Your task to perform on an android device: check android version Image 0: 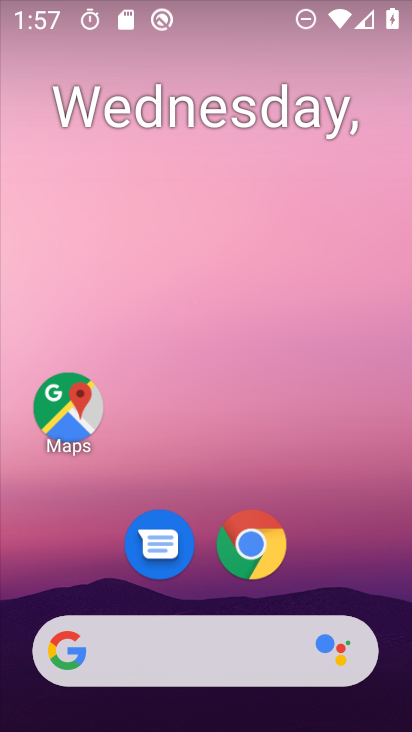
Step 0: drag from (350, 554) to (355, 185)
Your task to perform on an android device: check android version Image 1: 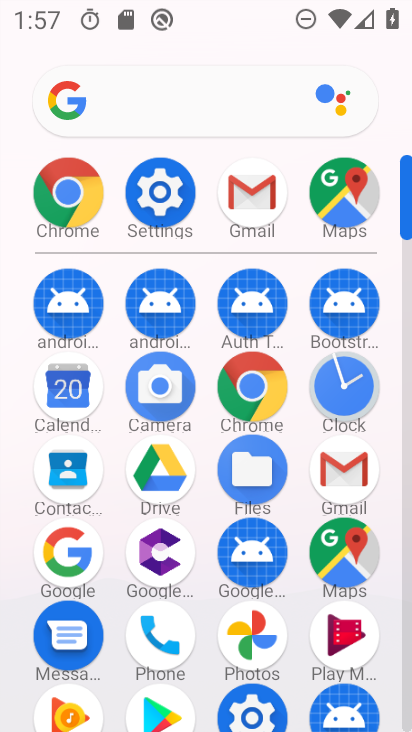
Step 1: click (162, 179)
Your task to perform on an android device: check android version Image 2: 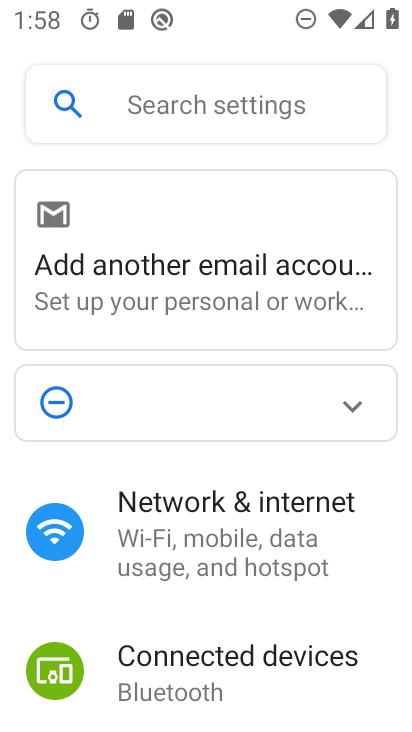
Step 2: drag from (373, 603) to (368, 474)
Your task to perform on an android device: check android version Image 3: 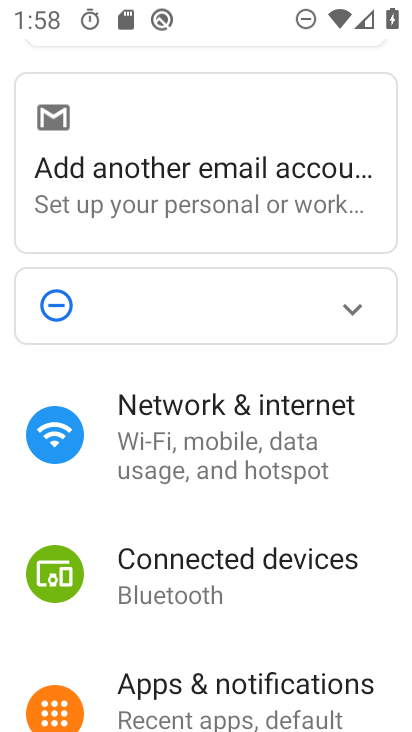
Step 3: drag from (359, 624) to (370, 484)
Your task to perform on an android device: check android version Image 4: 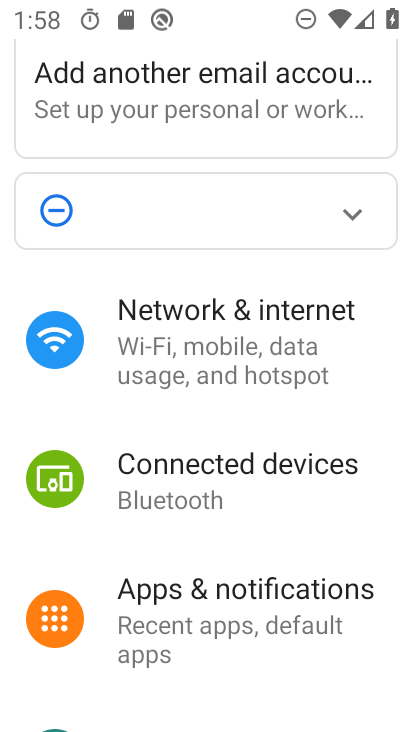
Step 4: drag from (367, 662) to (402, 501)
Your task to perform on an android device: check android version Image 5: 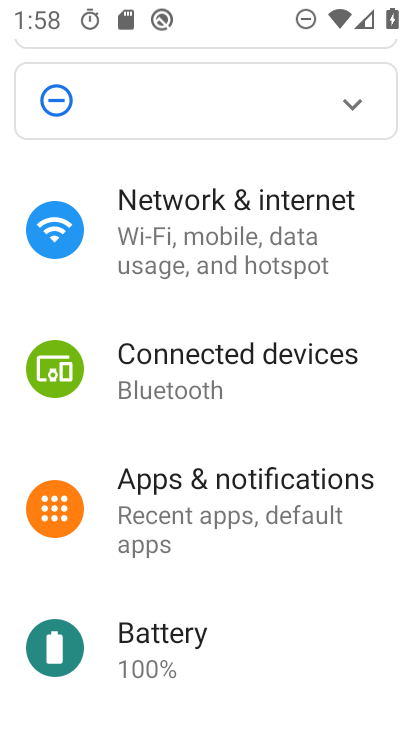
Step 5: drag from (355, 619) to (354, 432)
Your task to perform on an android device: check android version Image 6: 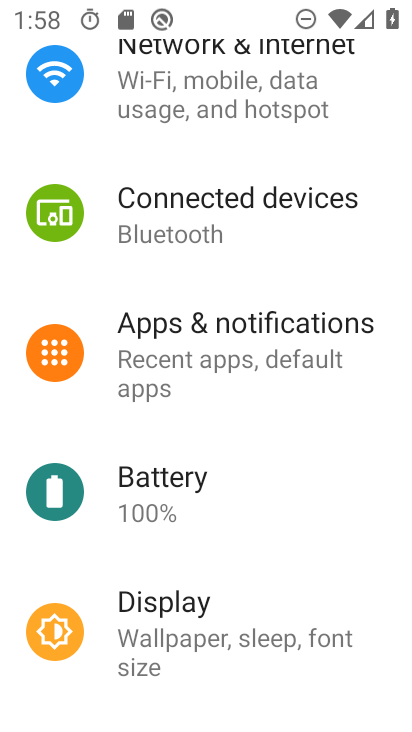
Step 6: drag from (362, 664) to (356, 505)
Your task to perform on an android device: check android version Image 7: 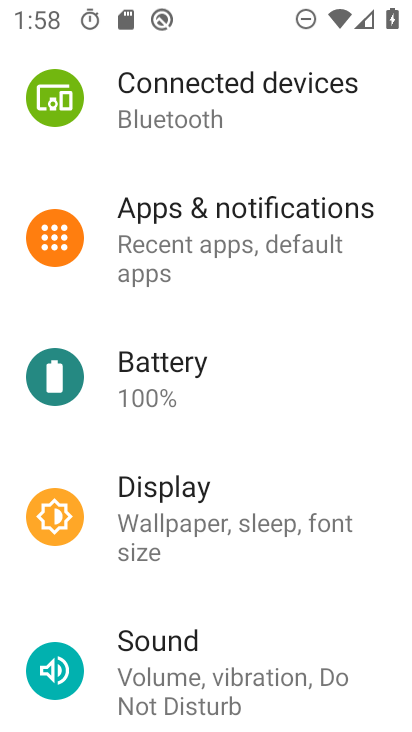
Step 7: drag from (351, 629) to (377, 379)
Your task to perform on an android device: check android version Image 8: 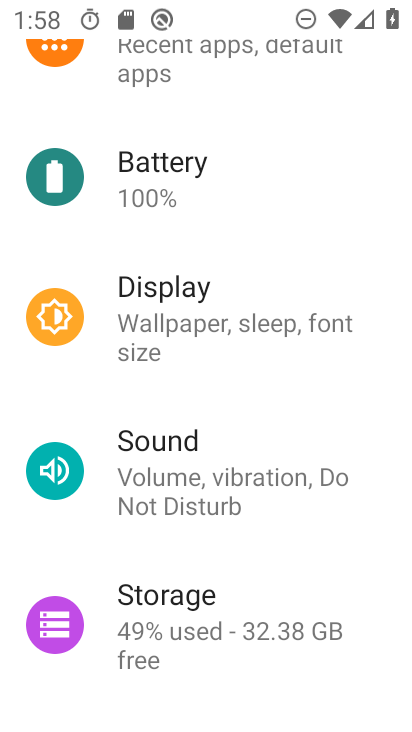
Step 8: drag from (353, 530) to (351, 400)
Your task to perform on an android device: check android version Image 9: 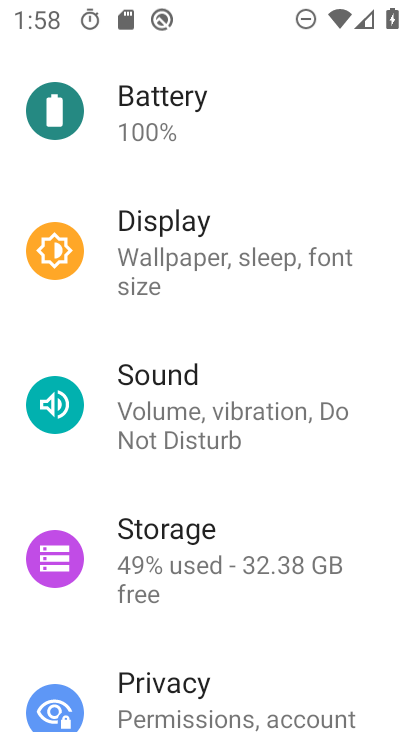
Step 9: drag from (356, 629) to (370, 450)
Your task to perform on an android device: check android version Image 10: 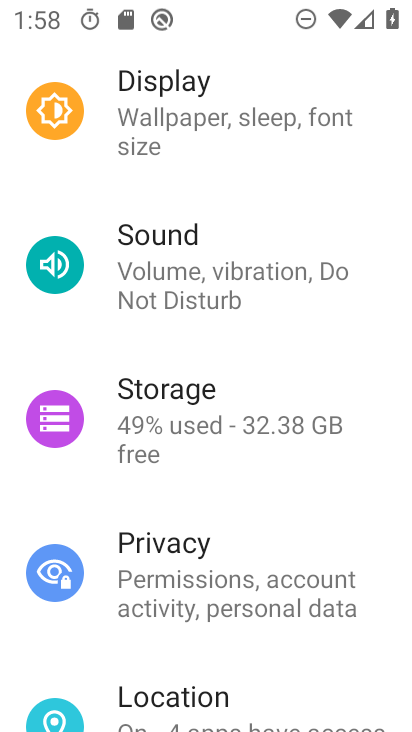
Step 10: drag from (362, 656) to (381, 486)
Your task to perform on an android device: check android version Image 11: 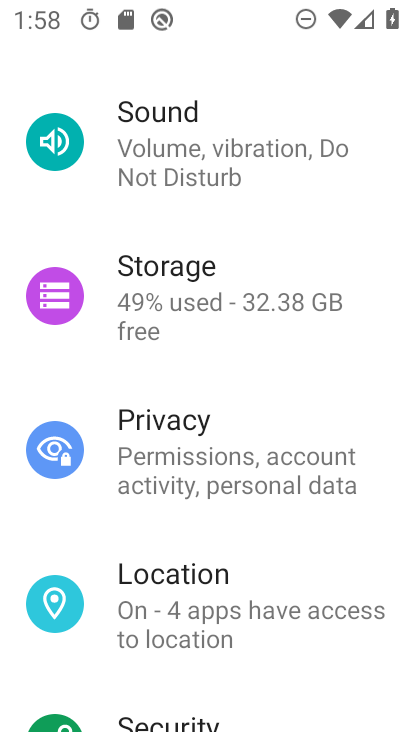
Step 11: drag from (330, 663) to (367, 462)
Your task to perform on an android device: check android version Image 12: 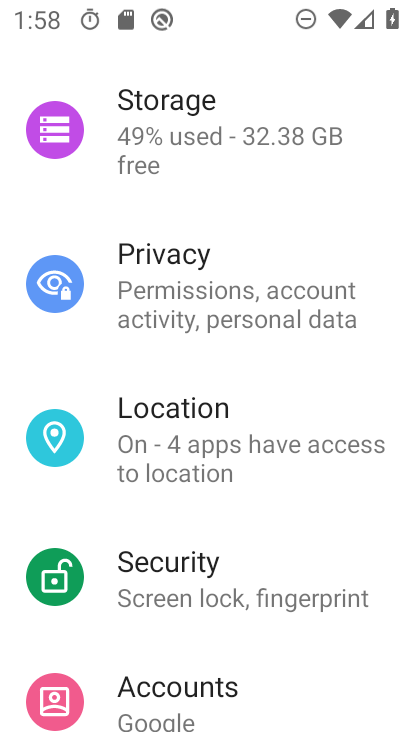
Step 12: drag from (331, 644) to (327, 489)
Your task to perform on an android device: check android version Image 13: 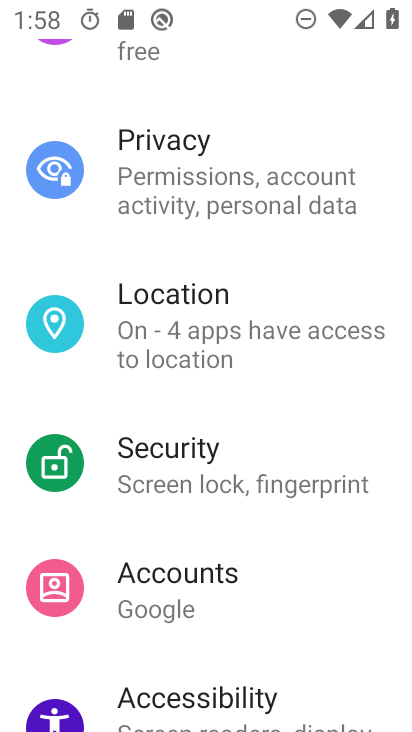
Step 13: drag from (328, 642) to (327, 501)
Your task to perform on an android device: check android version Image 14: 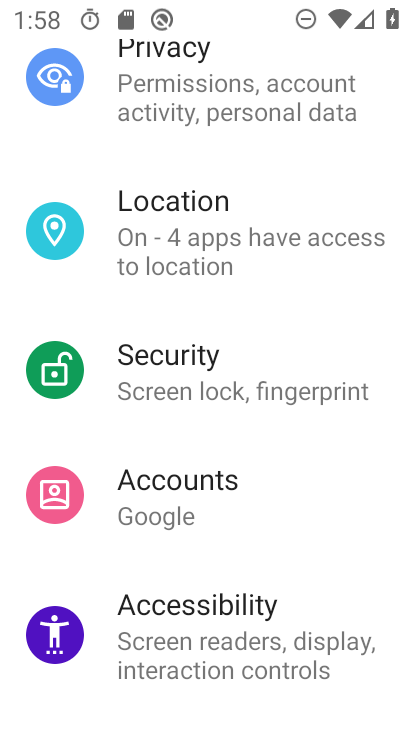
Step 14: drag from (345, 578) to (348, 355)
Your task to perform on an android device: check android version Image 15: 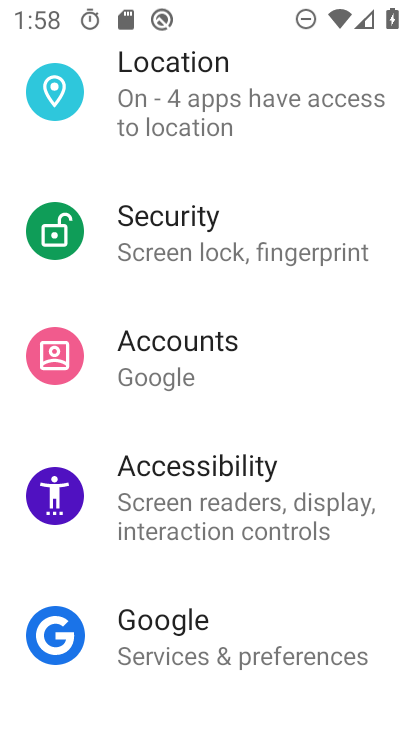
Step 15: drag from (400, 545) to (353, 299)
Your task to perform on an android device: check android version Image 16: 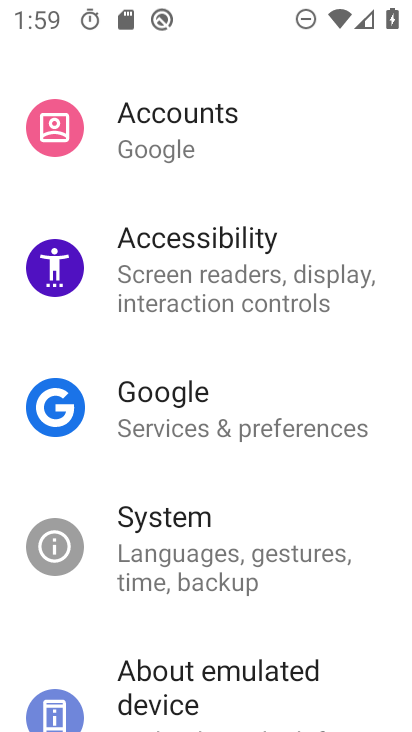
Step 16: drag from (380, 614) to (358, 312)
Your task to perform on an android device: check android version Image 17: 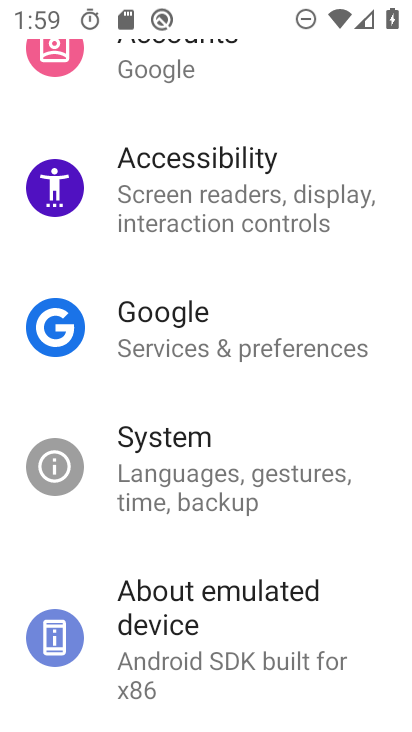
Step 17: drag from (362, 537) to (342, 264)
Your task to perform on an android device: check android version Image 18: 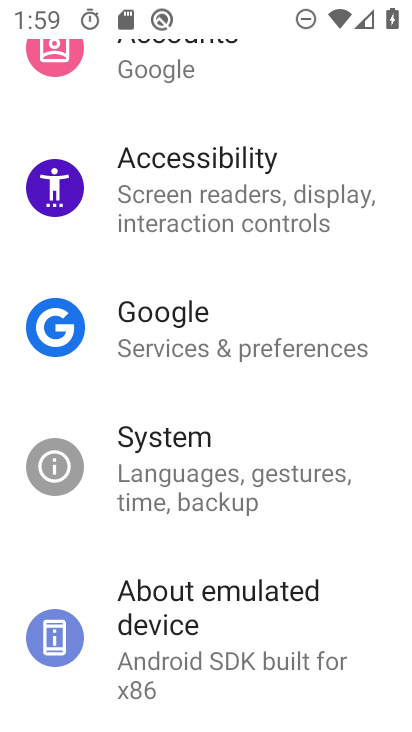
Step 18: click (194, 464)
Your task to perform on an android device: check android version Image 19: 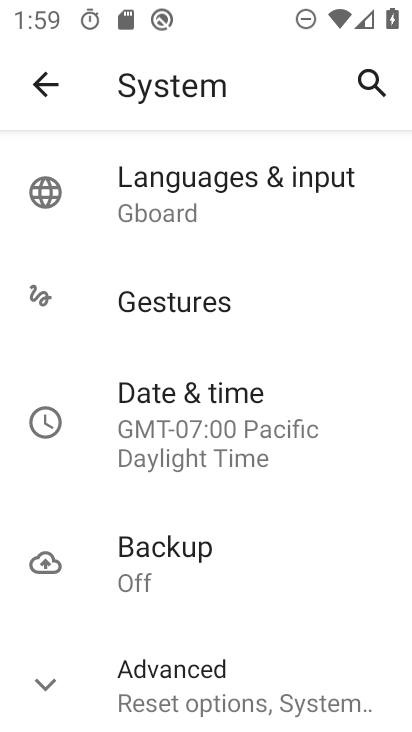
Step 19: click (209, 680)
Your task to perform on an android device: check android version Image 20: 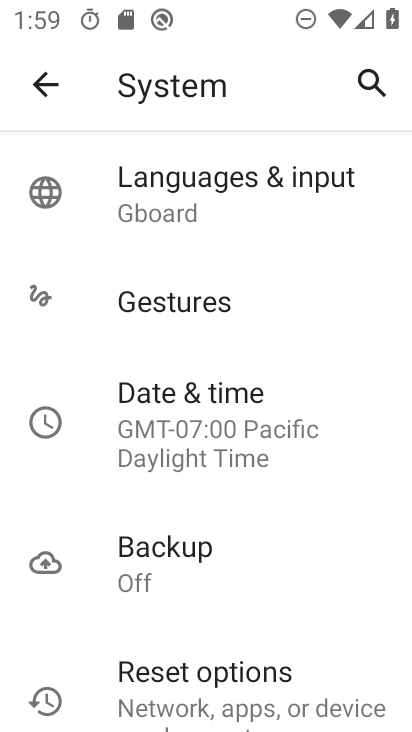
Step 20: drag from (319, 580) to (344, 199)
Your task to perform on an android device: check android version Image 21: 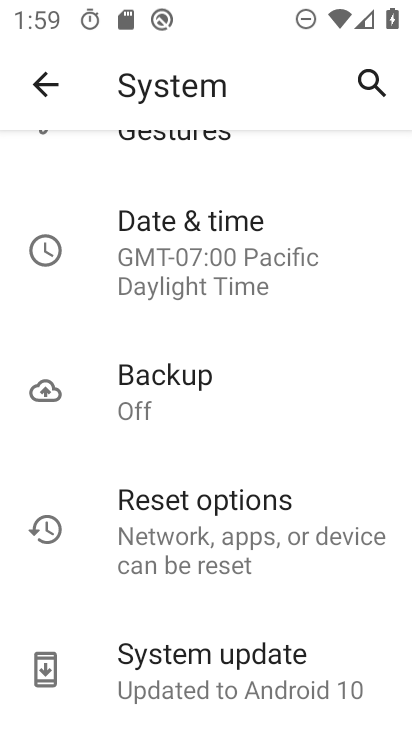
Step 21: click (228, 666)
Your task to perform on an android device: check android version Image 22: 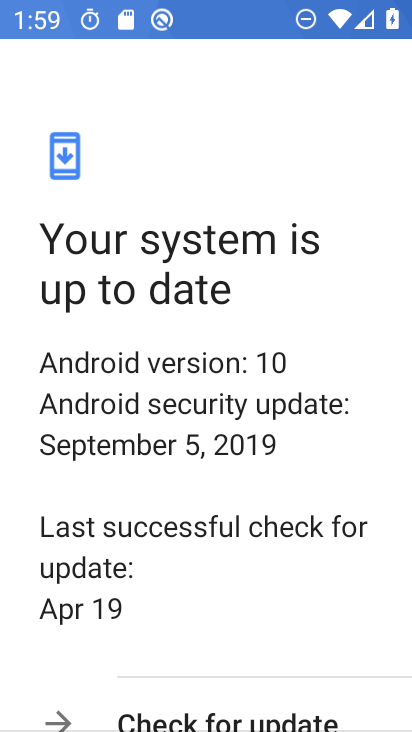
Step 22: task complete